Your task to perform on an android device: manage bookmarks in the chrome app Image 0: 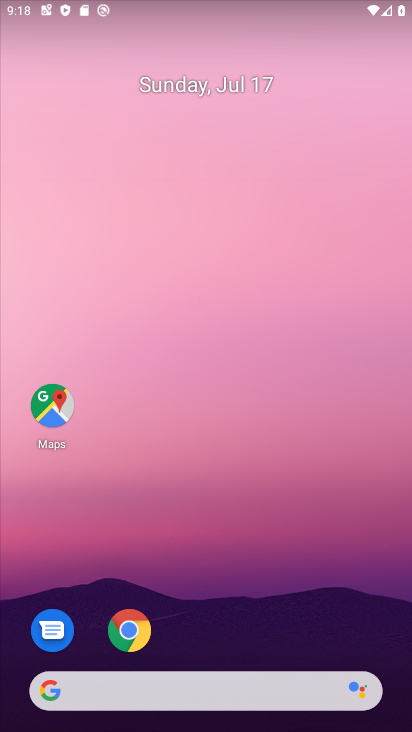
Step 0: drag from (295, 699) to (253, 1)
Your task to perform on an android device: manage bookmarks in the chrome app Image 1: 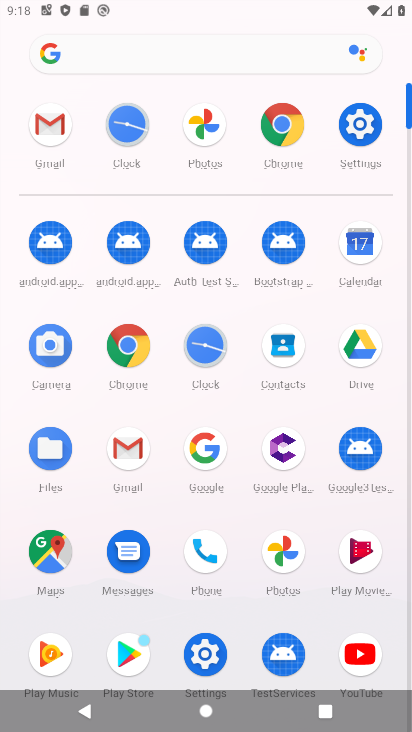
Step 1: click (131, 341)
Your task to perform on an android device: manage bookmarks in the chrome app Image 2: 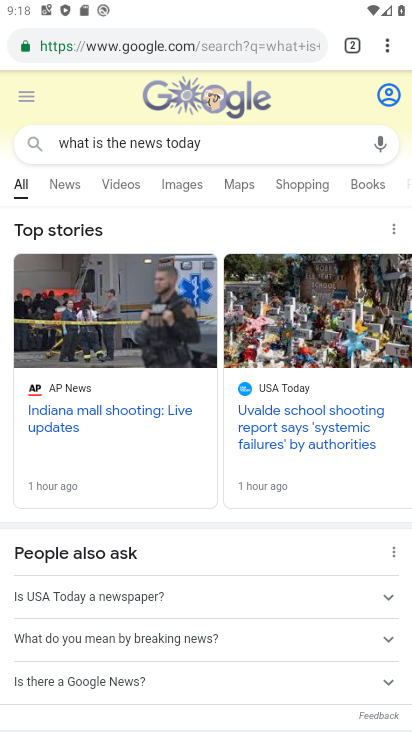
Step 2: click (390, 45)
Your task to perform on an android device: manage bookmarks in the chrome app Image 3: 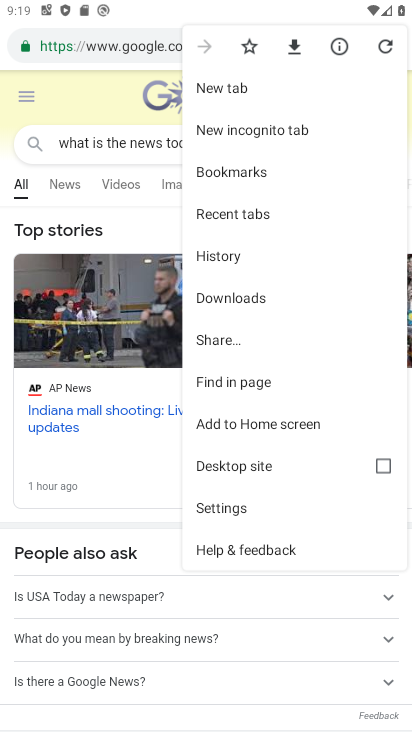
Step 3: click (241, 179)
Your task to perform on an android device: manage bookmarks in the chrome app Image 4: 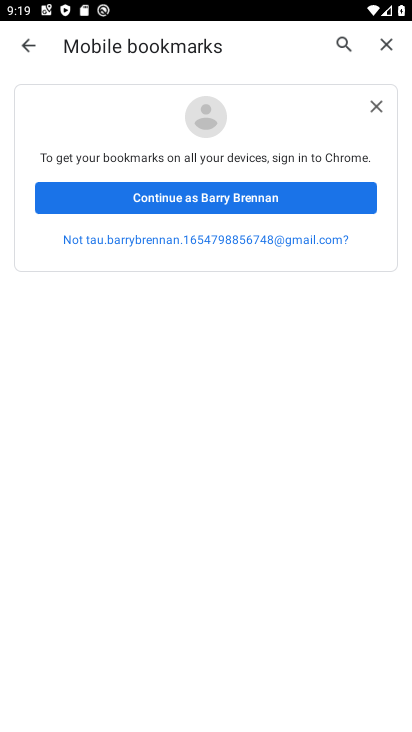
Step 4: task complete